Your task to perform on an android device: Show me productivity apps on the Play Store Image 0: 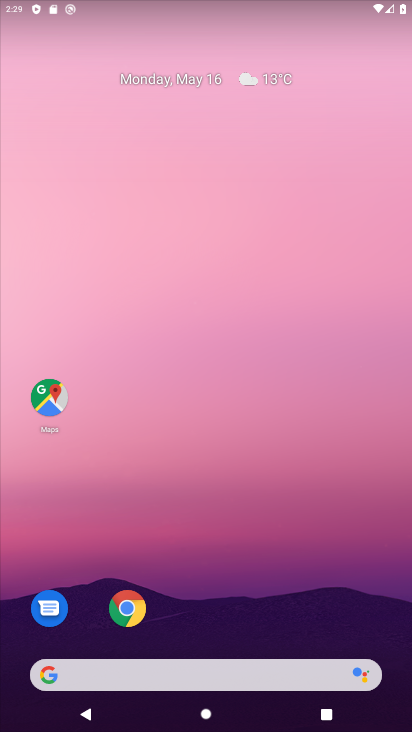
Step 0: drag from (197, 557) to (224, 23)
Your task to perform on an android device: Show me productivity apps on the Play Store Image 1: 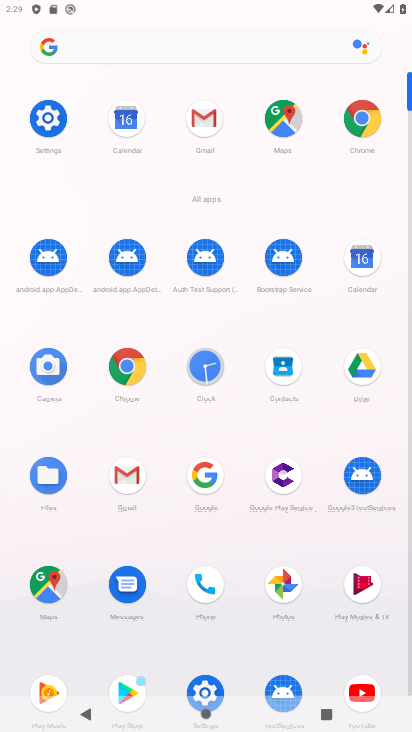
Step 1: click (122, 685)
Your task to perform on an android device: Show me productivity apps on the Play Store Image 2: 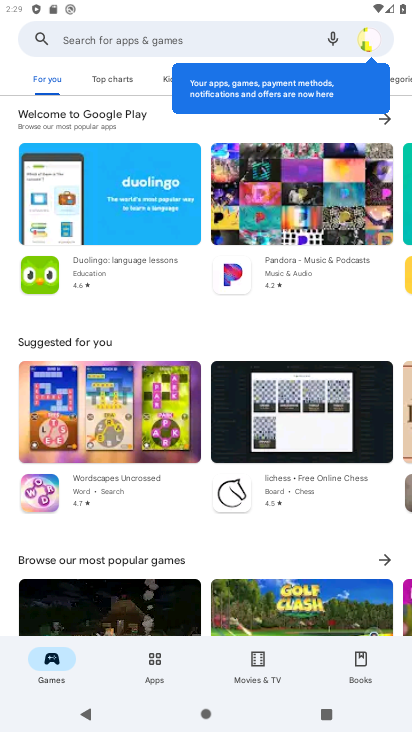
Step 2: click (154, 679)
Your task to perform on an android device: Show me productivity apps on the Play Store Image 3: 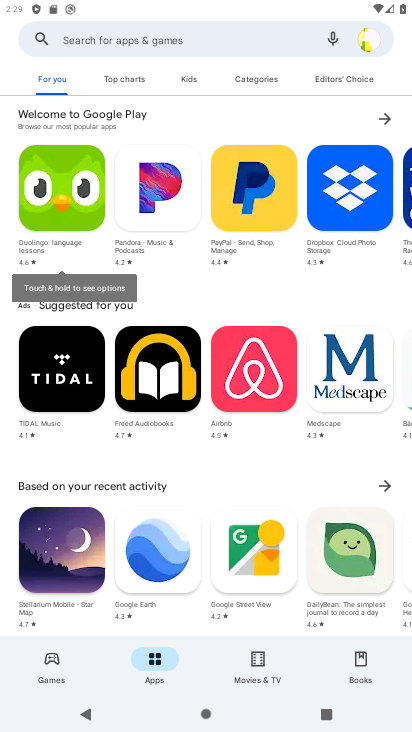
Step 3: click (253, 84)
Your task to perform on an android device: Show me productivity apps on the Play Store Image 4: 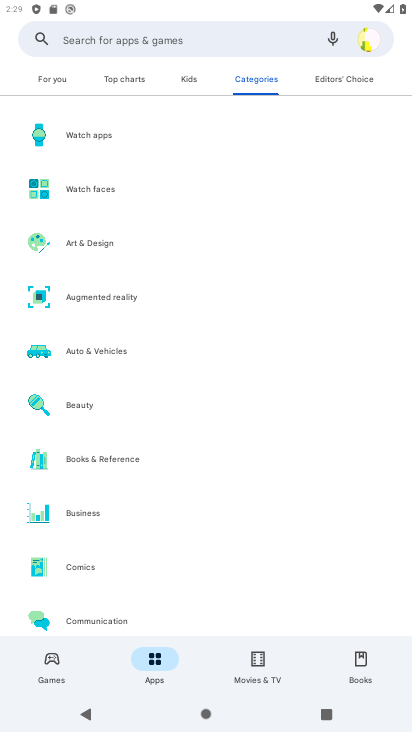
Step 4: drag from (196, 181) to (217, 89)
Your task to perform on an android device: Show me productivity apps on the Play Store Image 5: 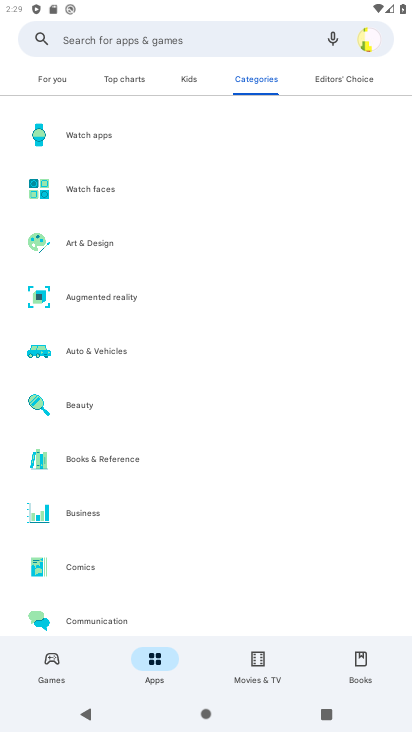
Step 5: click (111, 325)
Your task to perform on an android device: Show me productivity apps on the Play Store Image 6: 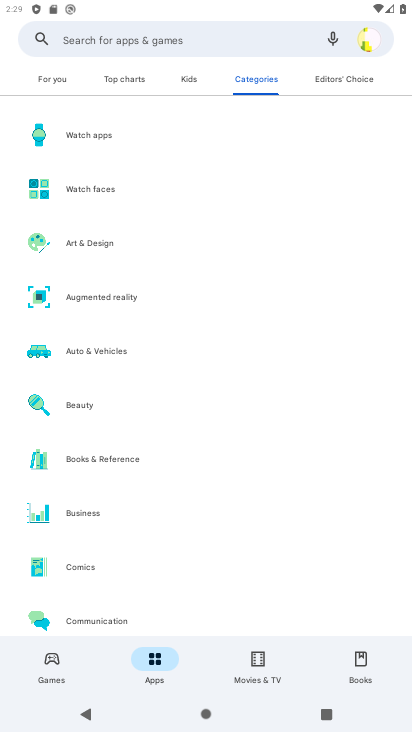
Step 6: drag from (88, 567) to (126, 240)
Your task to perform on an android device: Show me productivity apps on the Play Store Image 7: 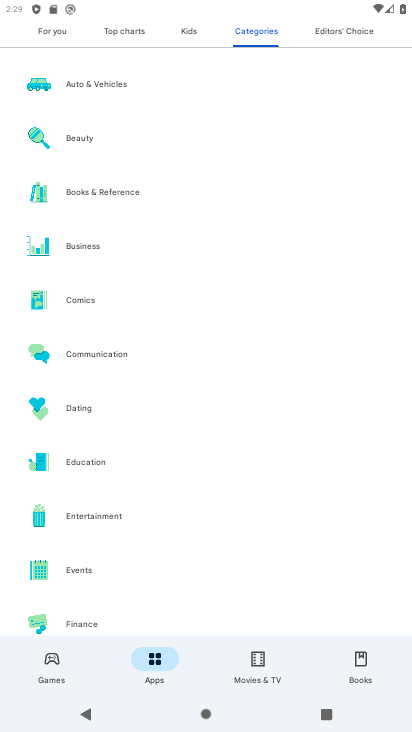
Step 7: drag from (120, 565) to (148, 107)
Your task to perform on an android device: Show me productivity apps on the Play Store Image 8: 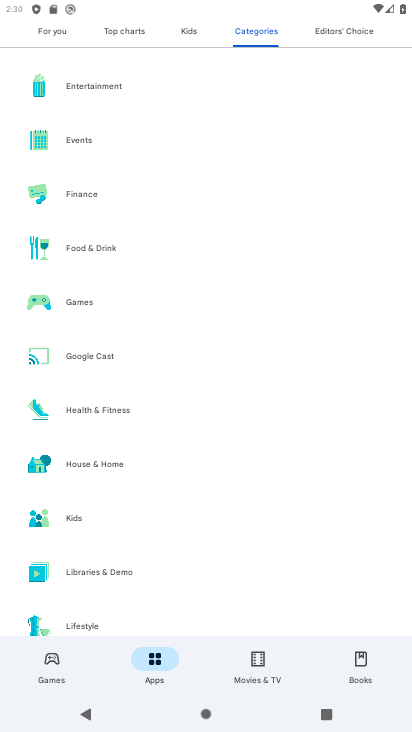
Step 8: drag from (215, 370) to (247, 149)
Your task to perform on an android device: Show me productivity apps on the Play Store Image 9: 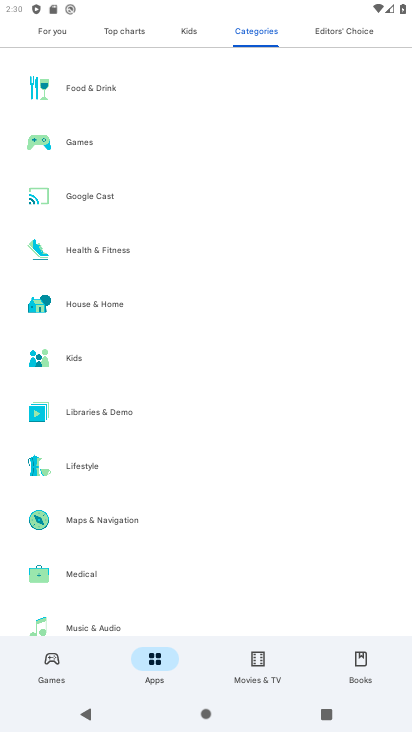
Step 9: drag from (97, 591) to (148, 209)
Your task to perform on an android device: Show me productivity apps on the Play Store Image 10: 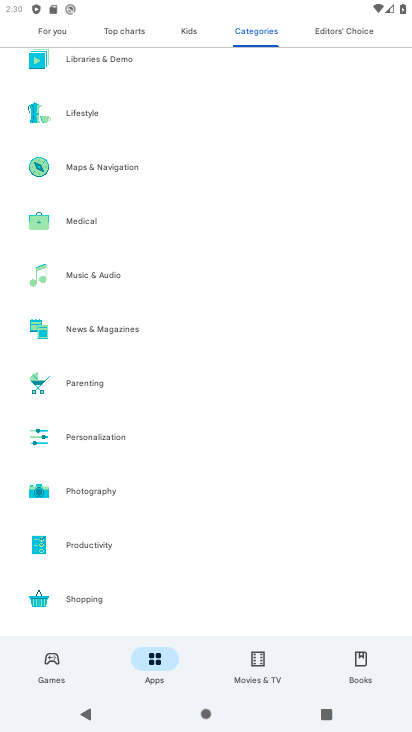
Step 10: drag from (98, 569) to (177, 343)
Your task to perform on an android device: Show me productivity apps on the Play Store Image 11: 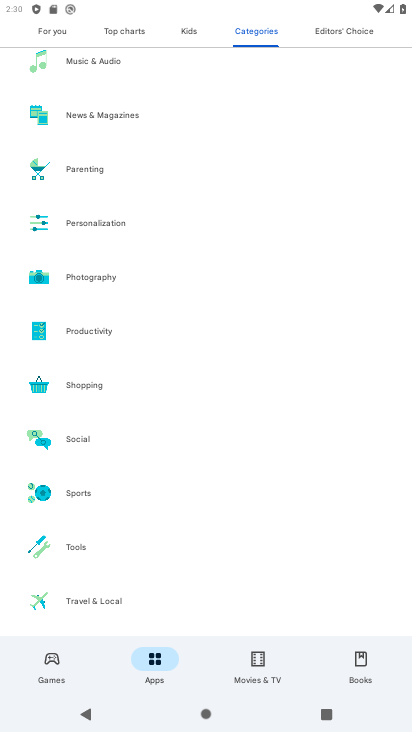
Step 11: click (91, 331)
Your task to perform on an android device: Show me productivity apps on the Play Store Image 12: 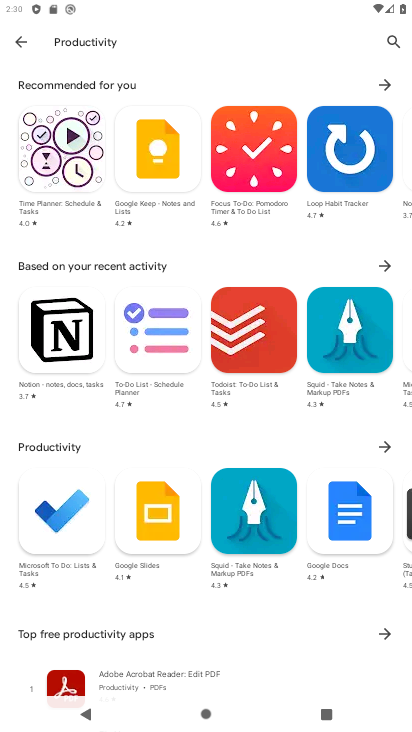
Step 12: task complete